Your task to perform on an android device: Is it going to rain this weekend? Image 0: 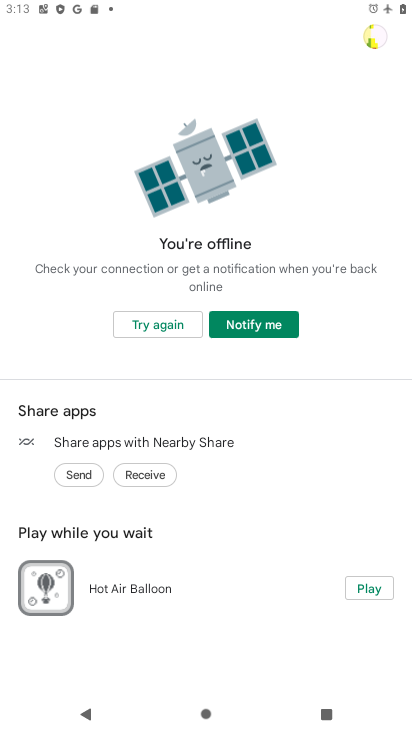
Step 0: press home button
Your task to perform on an android device: Is it going to rain this weekend? Image 1: 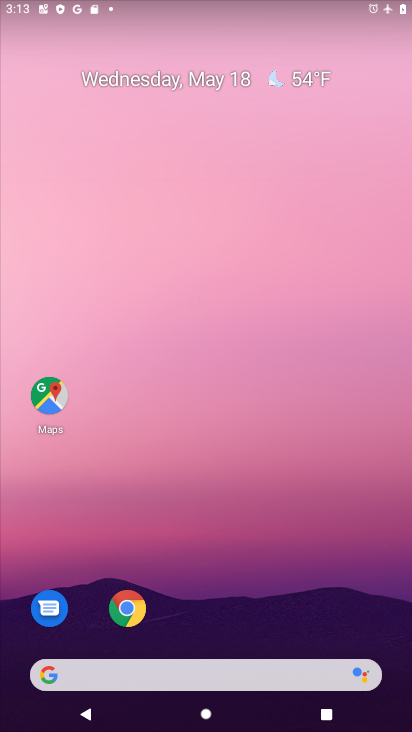
Step 1: click (306, 79)
Your task to perform on an android device: Is it going to rain this weekend? Image 2: 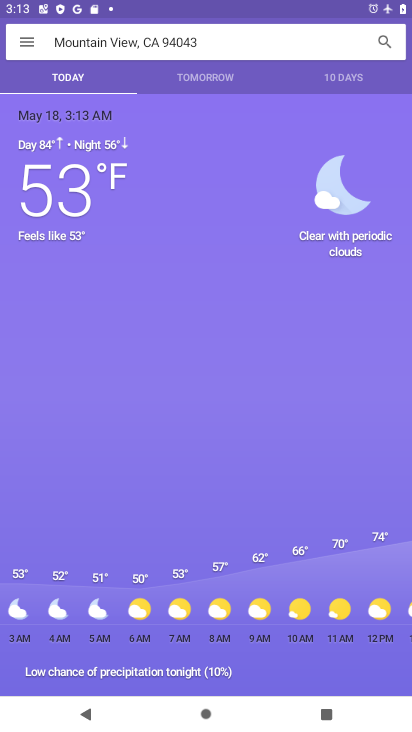
Step 2: click (346, 82)
Your task to perform on an android device: Is it going to rain this weekend? Image 3: 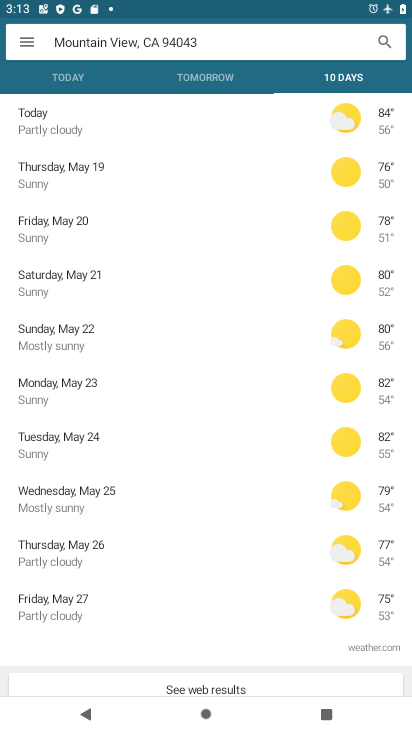
Step 3: task complete